Your task to perform on an android device: Open the phone app and click the voicemail tab. Image 0: 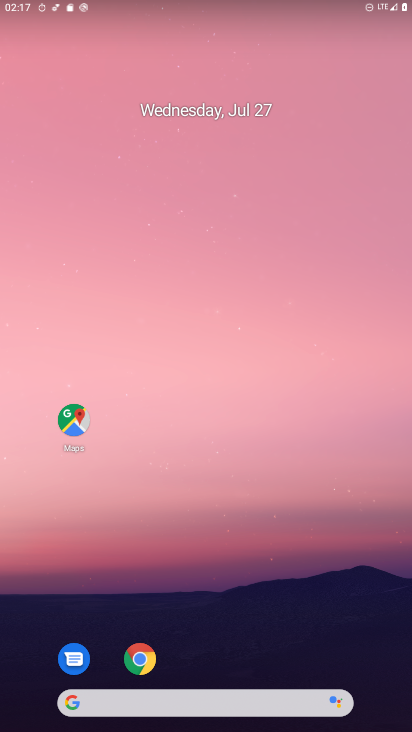
Step 0: drag from (327, 632) to (183, 63)
Your task to perform on an android device: Open the phone app and click the voicemail tab. Image 1: 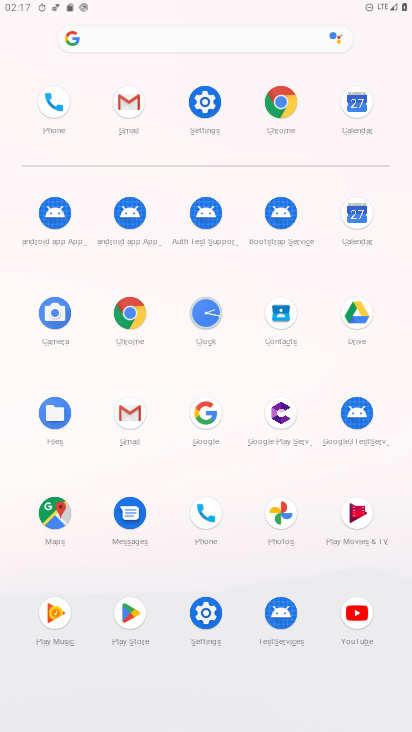
Step 1: click (212, 514)
Your task to perform on an android device: Open the phone app and click the voicemail tab. Image 2: 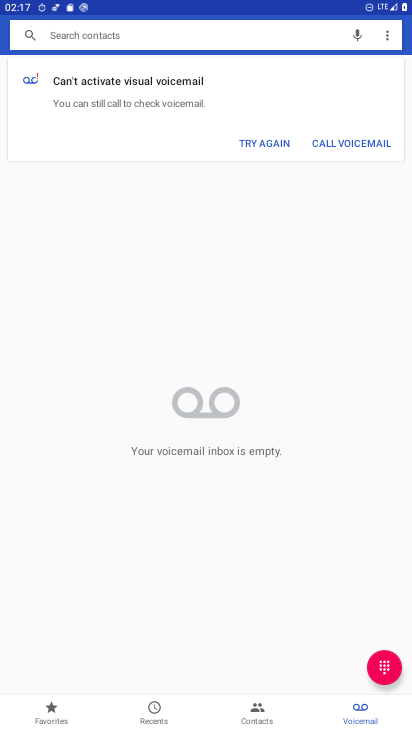
Step 2: task complete